Your task to perform on an android device: turn on location history Image 0: 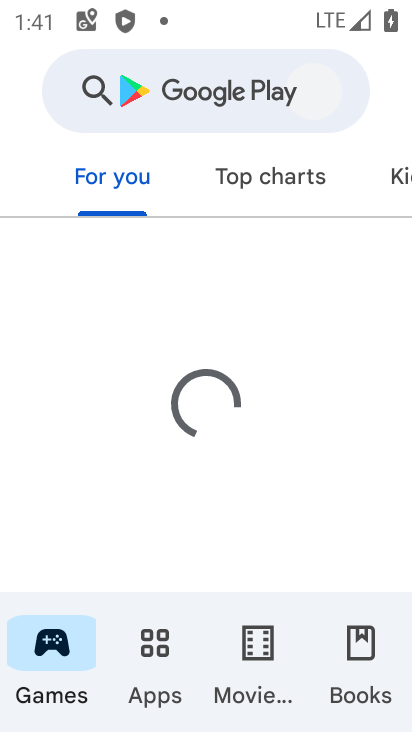
Step 0: press home button
Your task to perform on an android device: turn on location history Image 1: 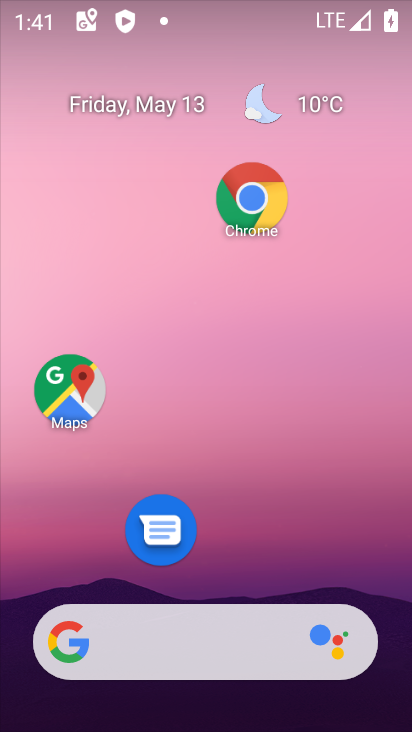
Step 1: drag from (231, 590) to (227, 23)
Your task to perform on an android device: turn on location history Image 2: 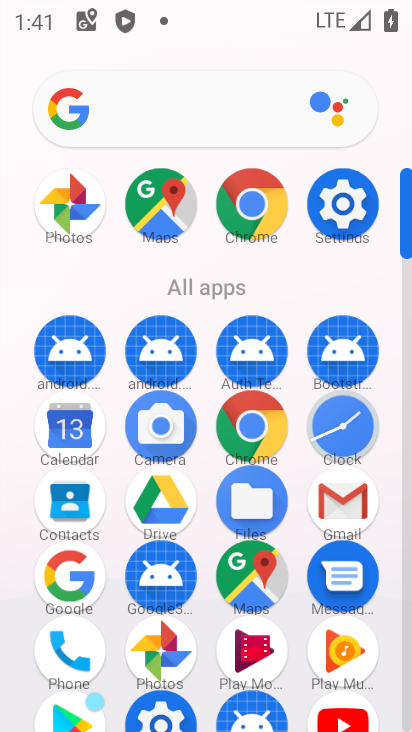
Step 2: click (345, 202)
Your task to perform on an android device: turn on location history Image 3: 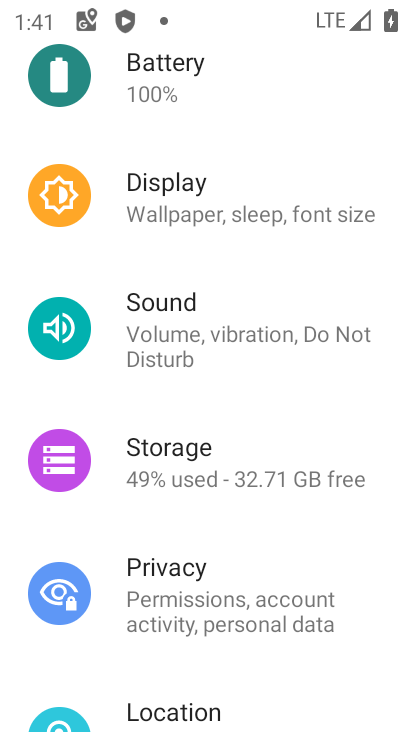
Step 3: click (184, 694)
Your task to perform on an android device: turn on location history Image 4: 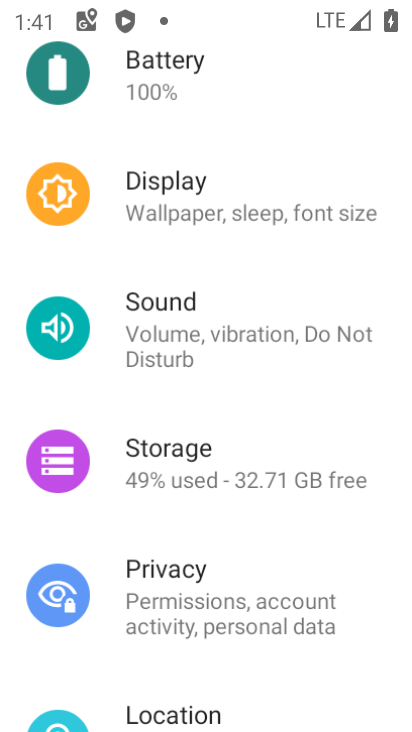
Step 4: drag from (185, 694) to (91, 42)
Your task to perform on an android device: turn on location history Image 5: 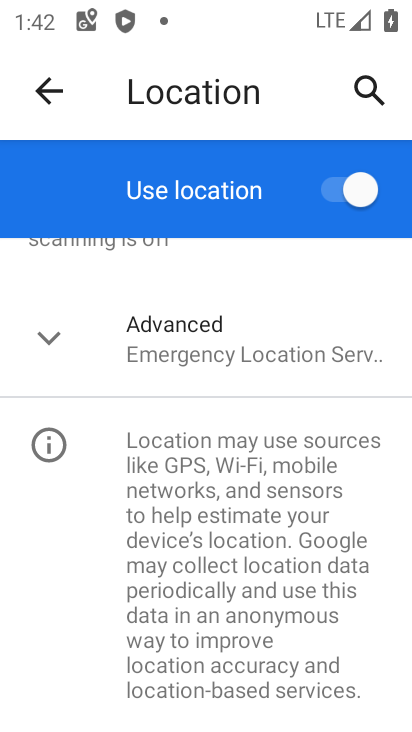
Step 5: click (164, 327)
Your task to perform on an android device: turn on location history Image 6: 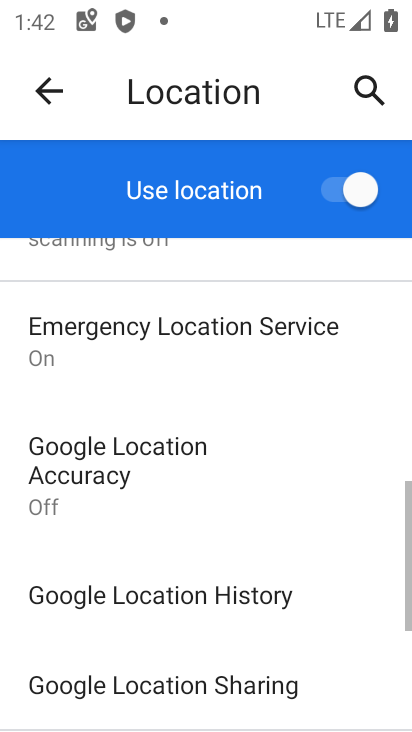
Step 6: click (183, 580)
Your task to perform on an android device: turn on location history Image 7: 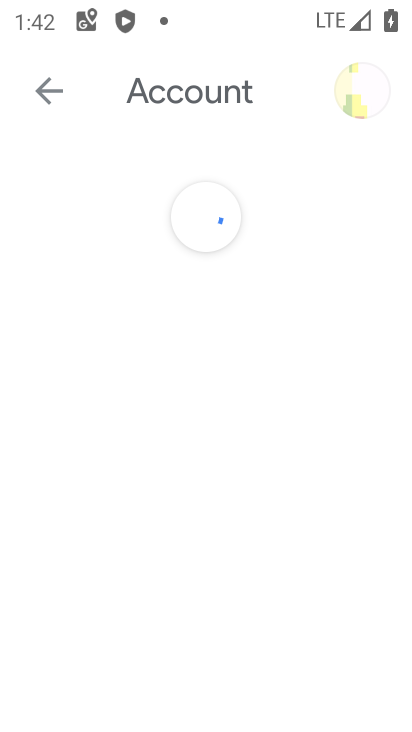
Step 7: task complete